Your task to perform on an android device: install app "Facebook Messenger" Image 0: 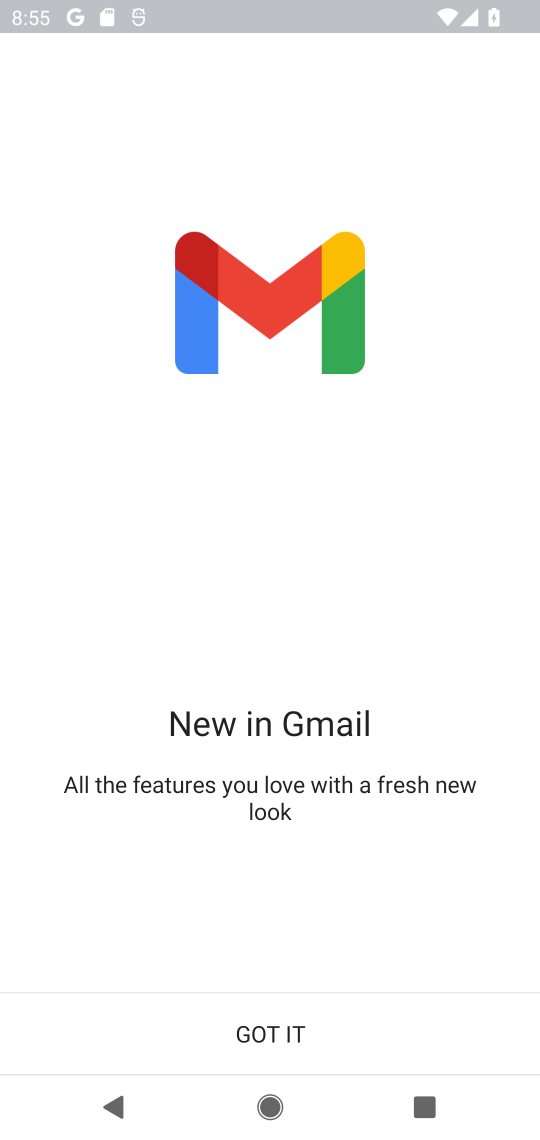
Step 0: press home button
Your task to perform on an android device: install app "Facebook Messenger" Image 1: 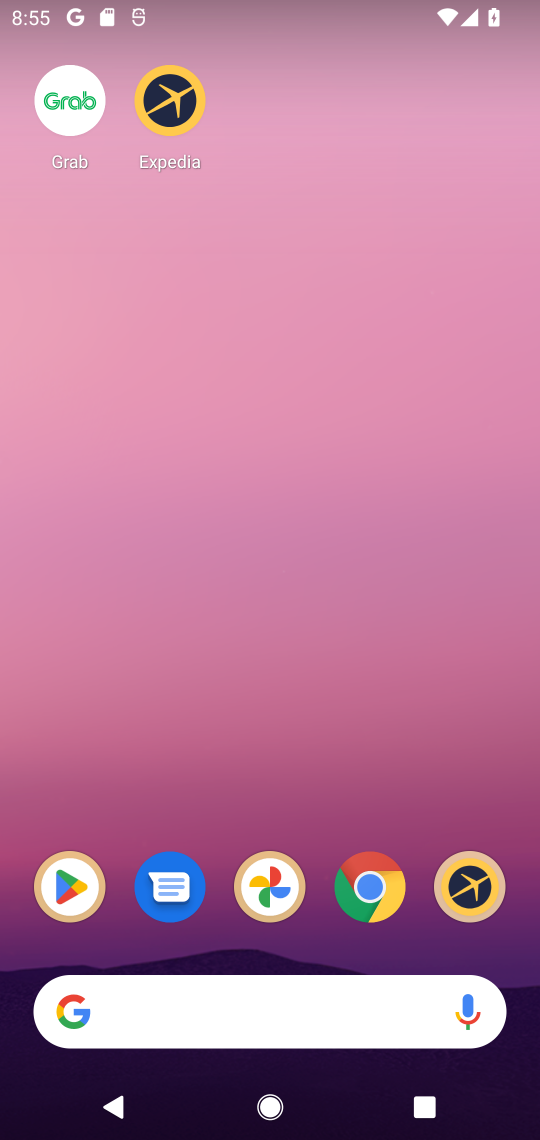
Step 1: click (70, 885)
Your task to perform on an android device: install app "Facebook Messenger" Image 2: 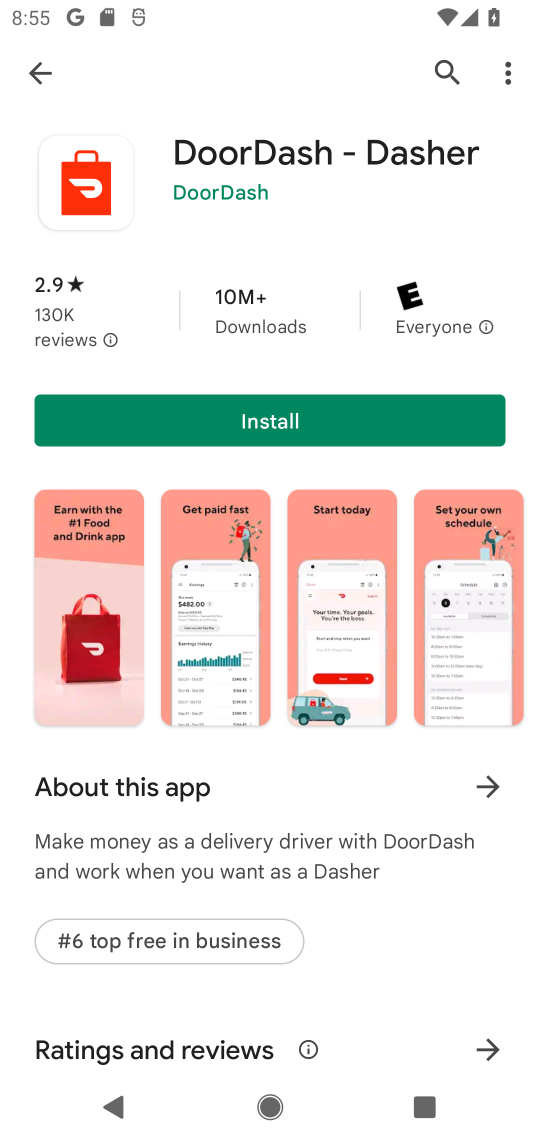
Step 2: click (444, 59)
Your task to perform on an android device: install app "Facebook Messenger" Image 3: 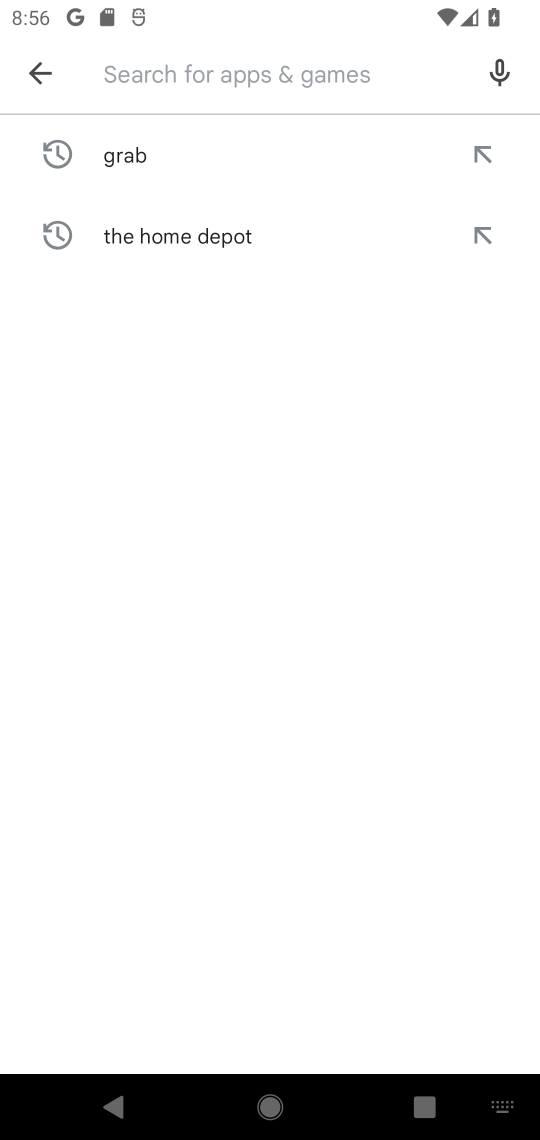
Step 3: type "facebook messenger"
Your task to perform on an android device: install app "Facebook Messenger" Image 4: 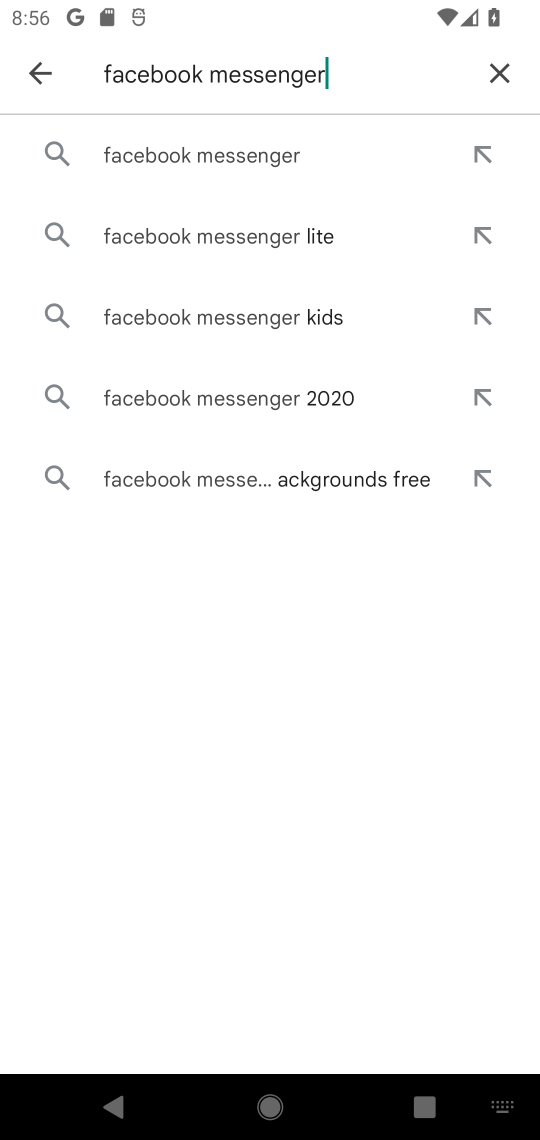
Step 4: click (328, 157)
Your task to perform on an android device: install app "Facebook Messenger" Image 5: 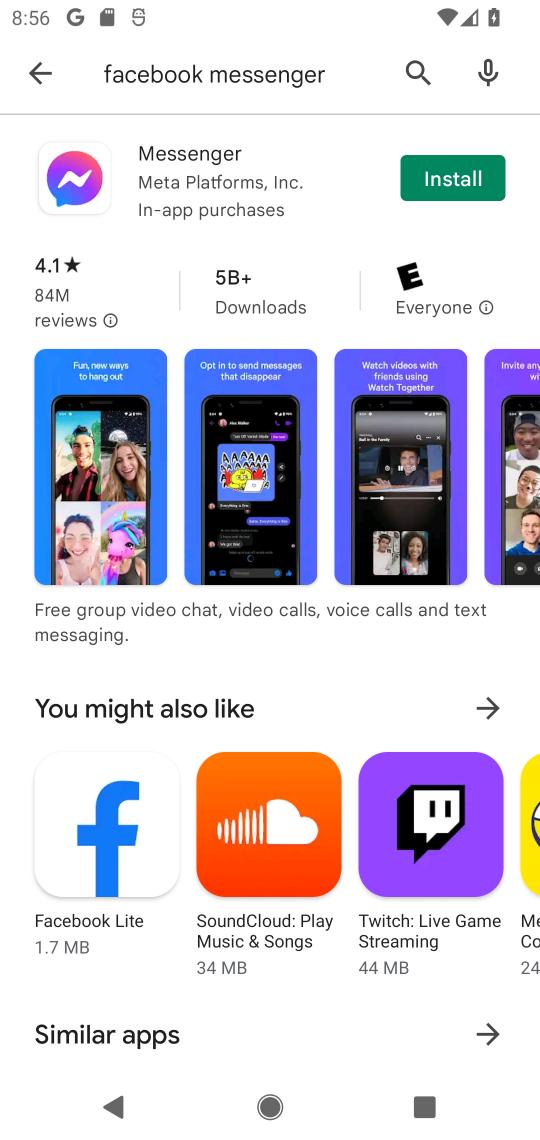
Step 5: click (245, 155)
Your task to perform on an android device: install app "Facebook Messenger" Image 6: 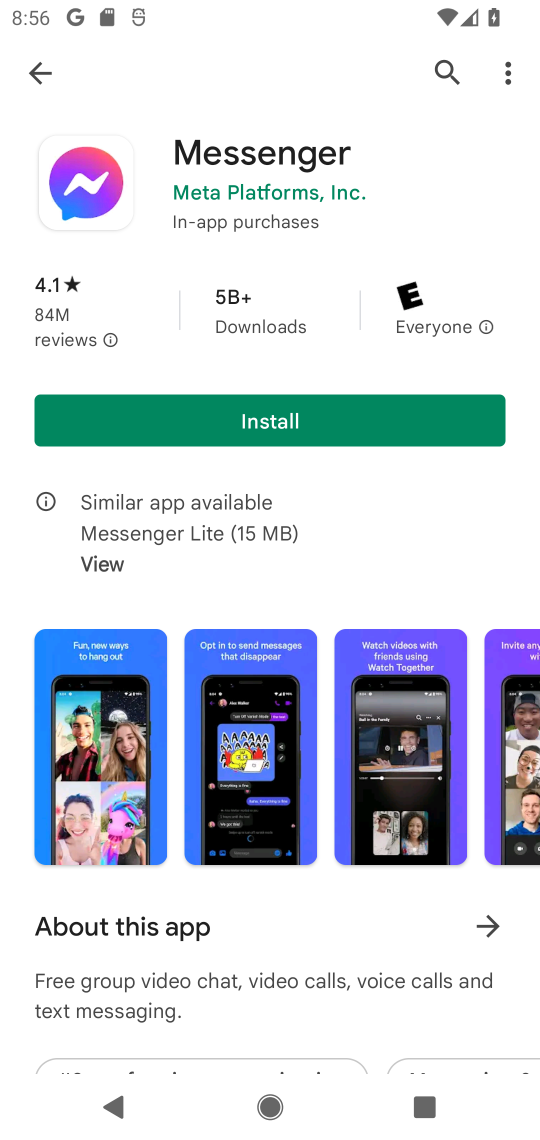
Step 6: click (206, 415)
Your task to perform on an android device: install app "Facebook Messenger" Image 7: 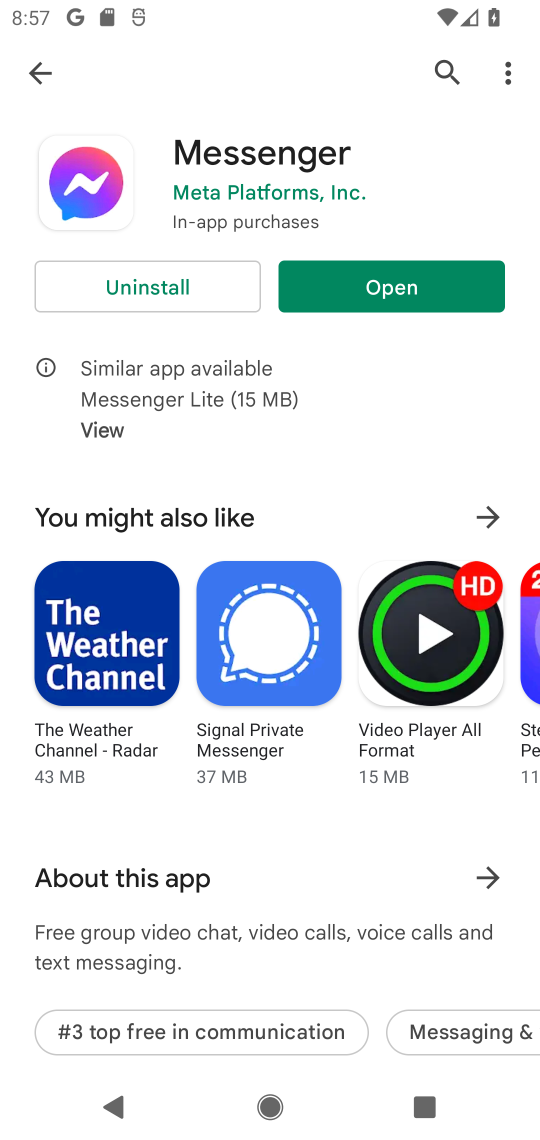
Step 7: task complete